Your task to perform on an android device: check out phone information Image 0: 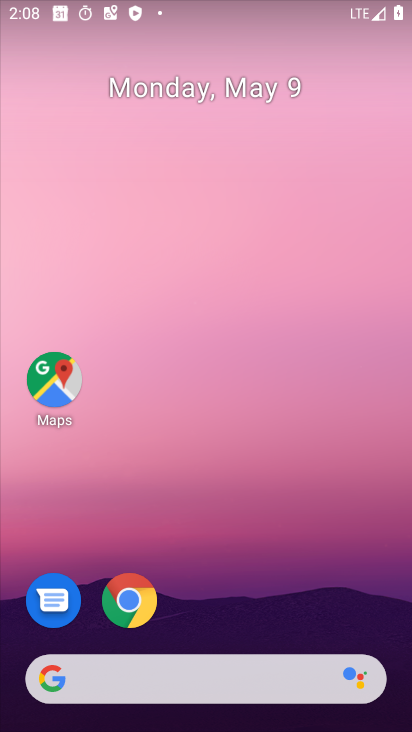
Step 0: drag from (246, 613) to (272, 212)
Your task to perform on an android device: check out phone information Image 1: 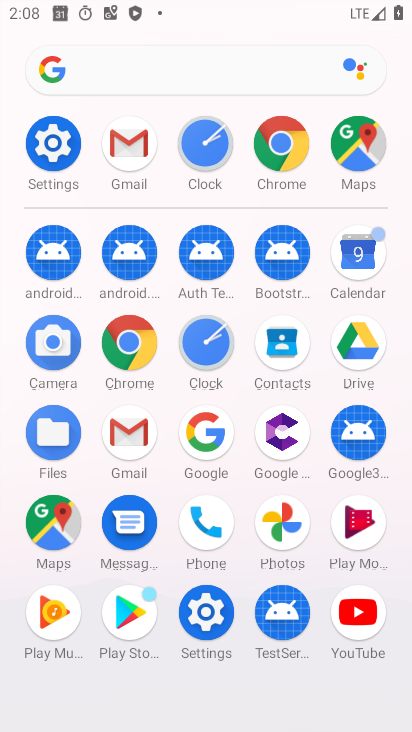
Step 1: click (197, 639)
Your task to perform on an android device: check out phone information Image 2: 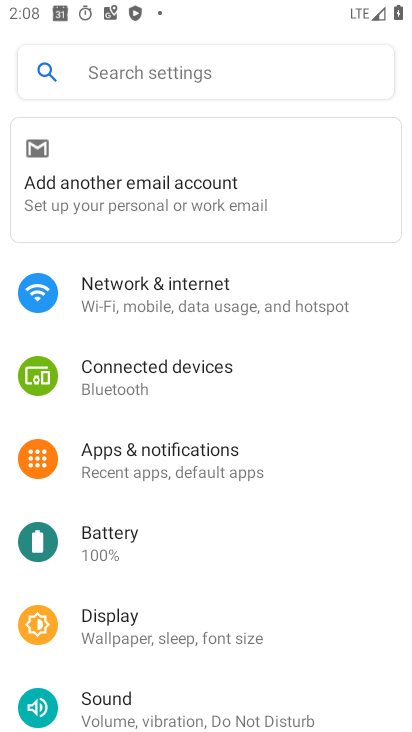
Step 2: drag from (198, 636) to (238, 224)
Your task to perform on an android device: check out phone information Image 3: 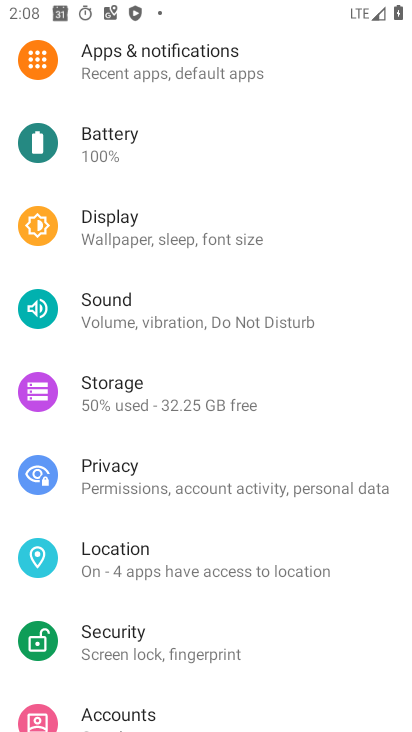
Step 3: drag from (256, 715) to (280, 84)
Your task to perform on an android device: check out phone information Image 4: 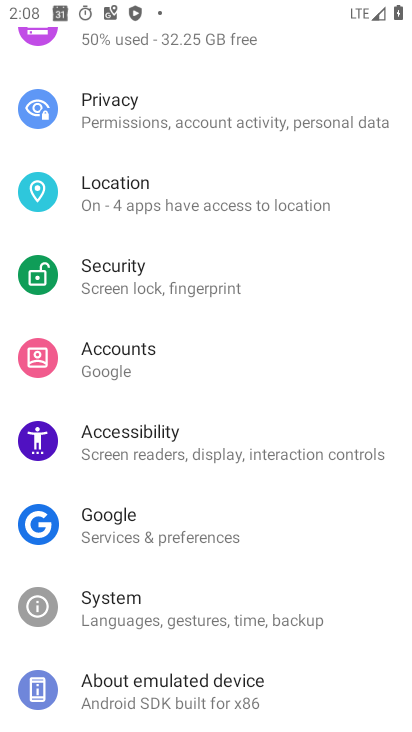
Step 4: drag from (215, 650) to (235, 427)
Your task to perform on an android device: check out phone information Image 5: 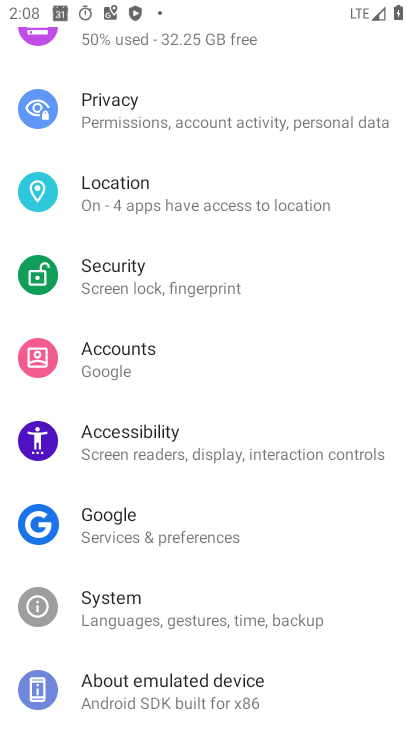
Step 5: click (227, 684)
Your task to perform on an android device: check out phone information Image 6: 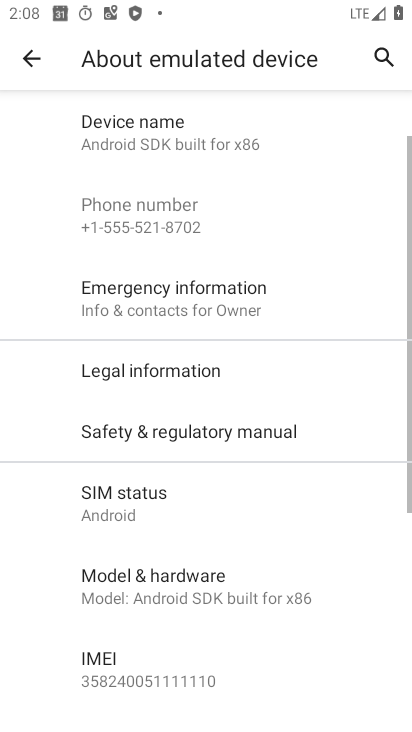
Step 6: click (188, 300)
Your task to perform on an android device: check out phone information Image 7: 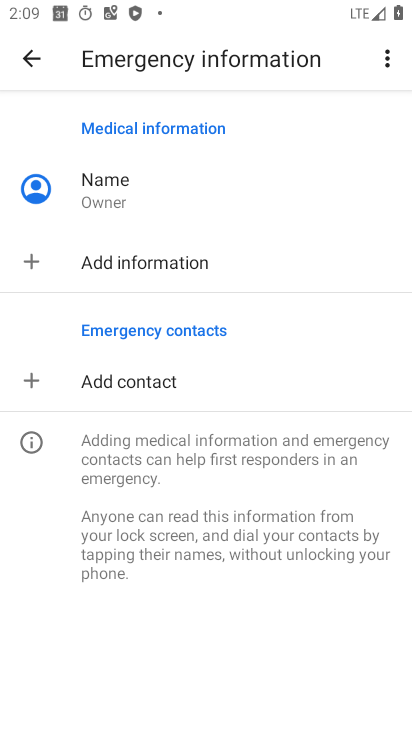
Step 7: click (200, 206)
Your task to perform on an android device: check out phone information Image 8: 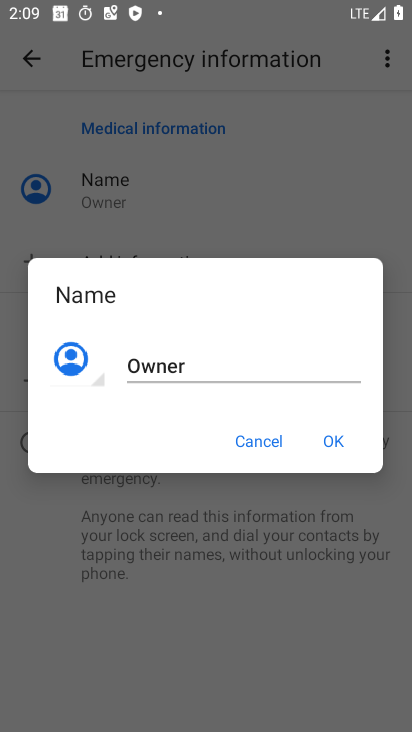
Step 8: task complete